Your task to perform on an android device: toggle notification dots Image 0: 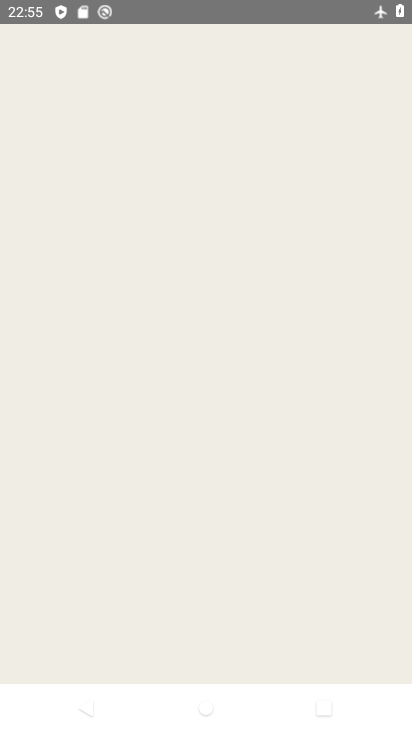
Step 0: click (239, 160)
Your task to perform on an android device: toggle notification dots Image 1: 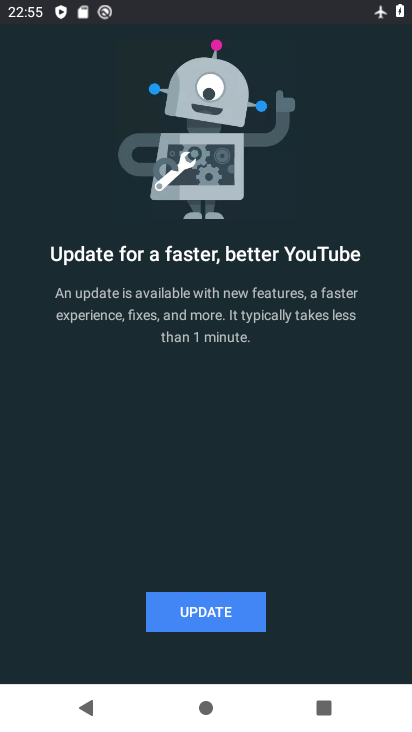
Step 1: press back button
Your task to perform on an android device: toggle notification dots Image 2: 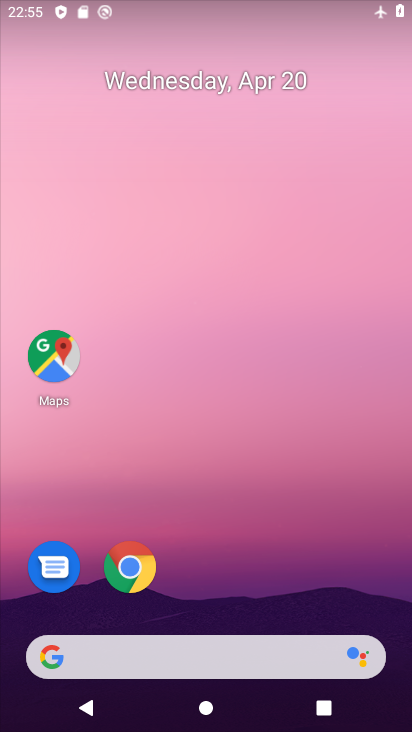
Step 2: drag from (245, 492) to (253, 228)
Your task to perform on an android device: toggle notification dots Image 3: 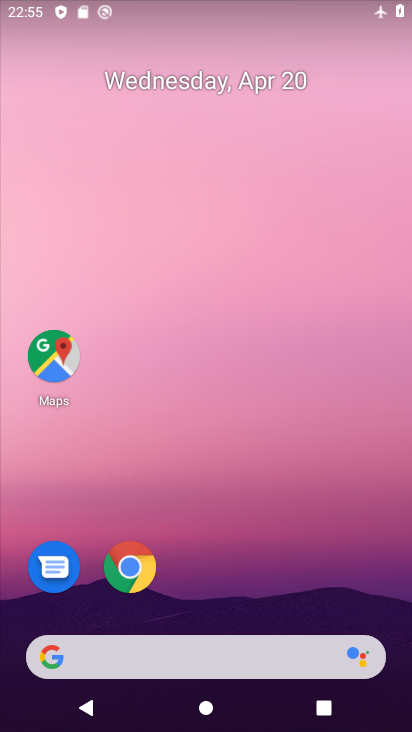
Step 3: drag from (235, 405) to (235, 312)
Your task to perform on an android device: toggle notification dots Image 4: 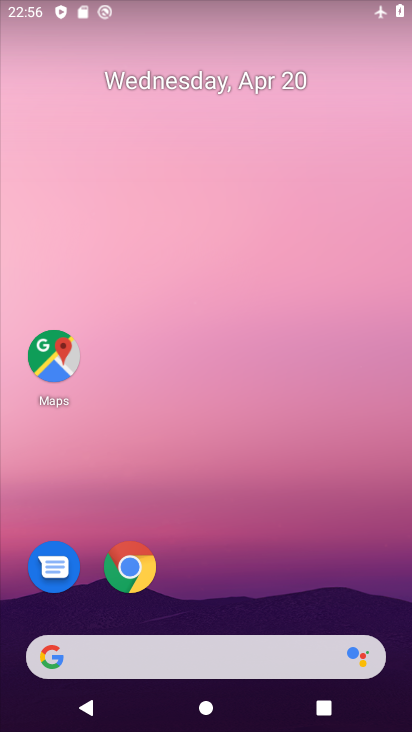
Step 4: drag from (236, 273) to (221, 162)
Your task to perform on an android device: toggle notification dots Image 5: 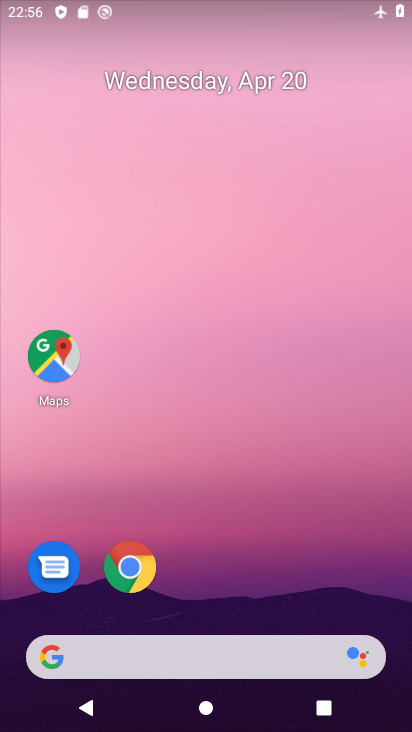
Step 5: drag from (264, 516) to (216, 196)
Your task to perform on an android device: toggle notification dots Image 6: 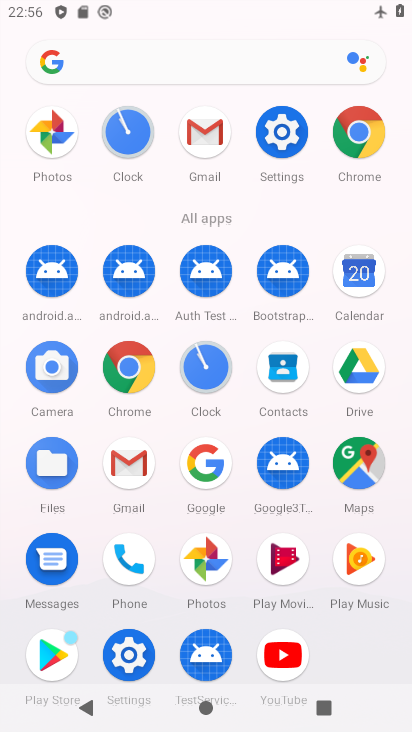
Step 6: click (277, 131)
Your task to perform on an android device: toggle notification dots Image 7: 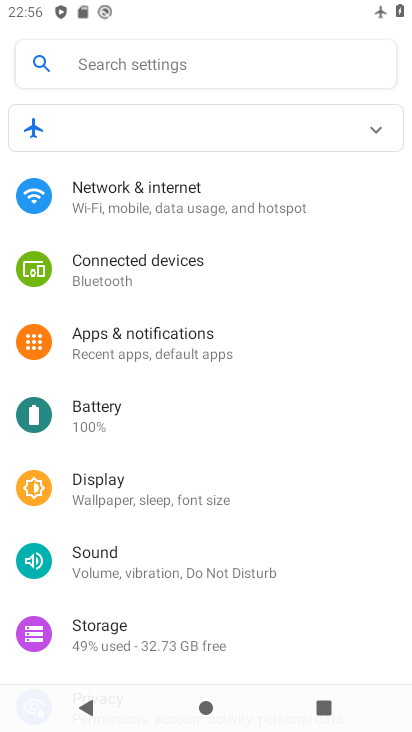
Step 7: click (193, 63)
Your task to perform on an android device: toggle notification dots Image 8: 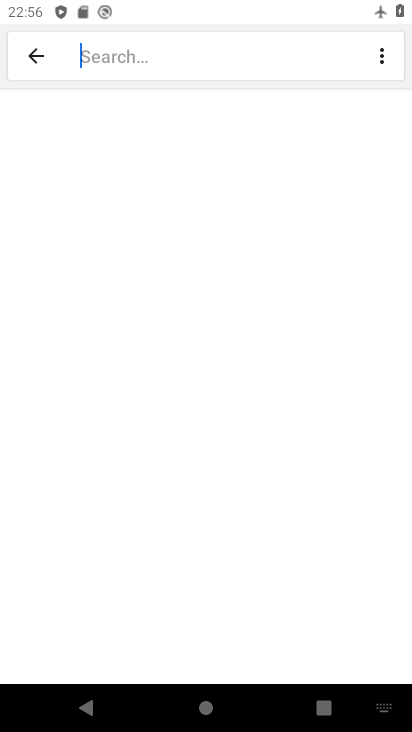
Step 8: type "notification dots"
Your task to perform on an android device: toggle notification dots Image 9: 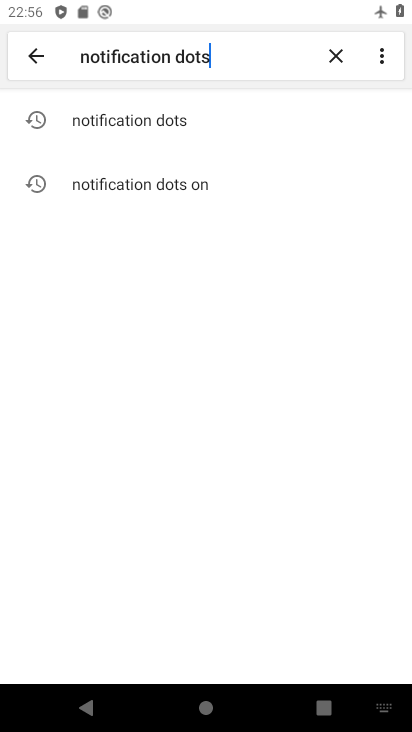
Step 9: click (184, 115)
Your task to perform on an android device: toggle notification dots Image 10: 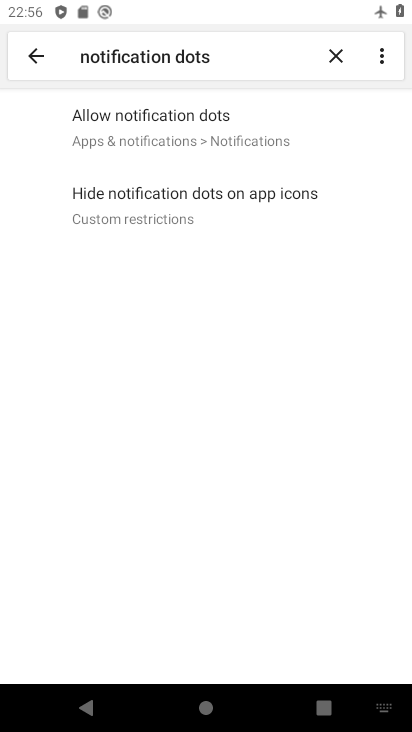
Step 10: click (184, 115)
Your task to perform on an android device: toggle notification dots Image 11: 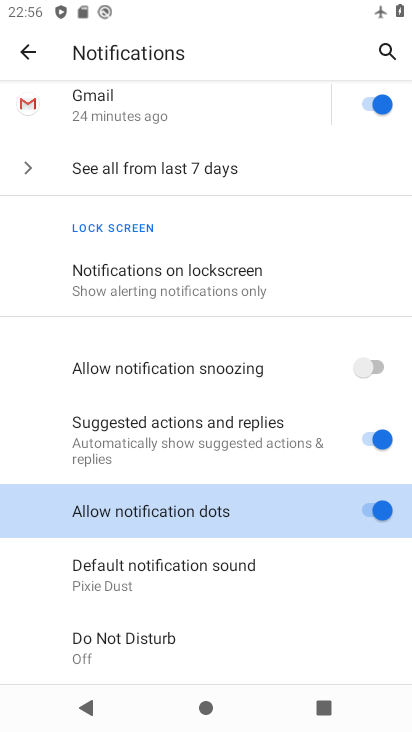
Step 11: click (375, 504)
Your task to perform on an android device: toggle notification dots Image 12: 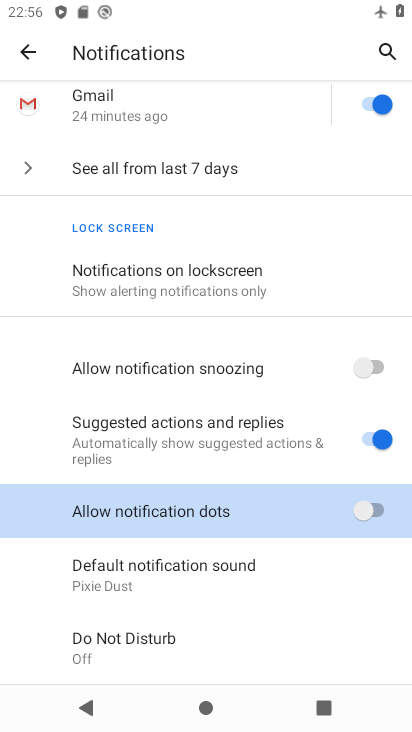
Step 12: task complete